Your task to perform on an android device: delete the emails in spam in the gmail app Image 0: 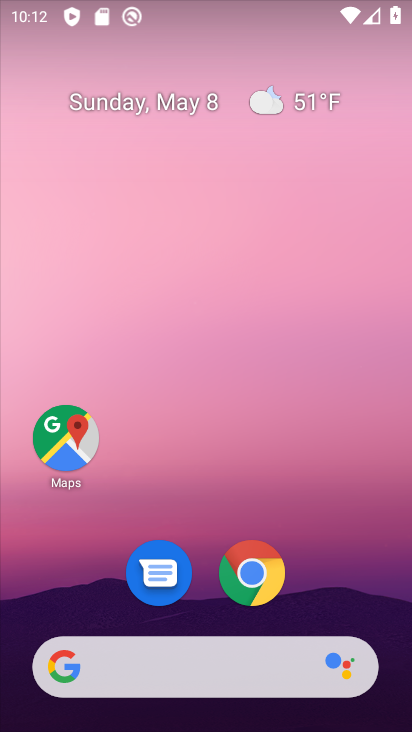
Step 0: drag from (182, 635) to (231, 231)
Your task to perform on an android device: delete the emails in spam in the gmail app Image 1: 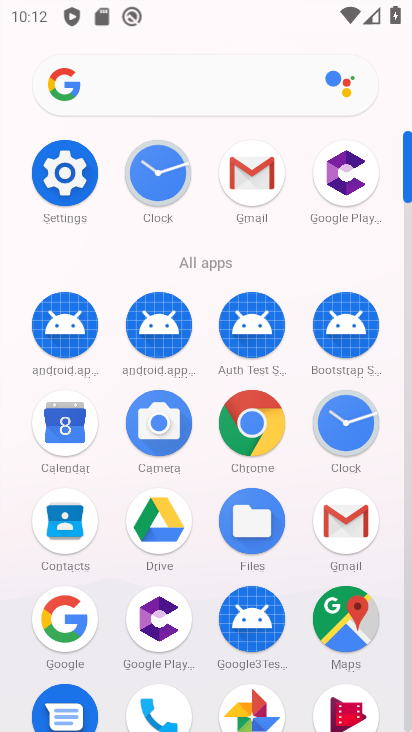
Step 1: click (324, 533)
Your task to perform on an android device: delete the emails in spam in the gmail app Image 2: 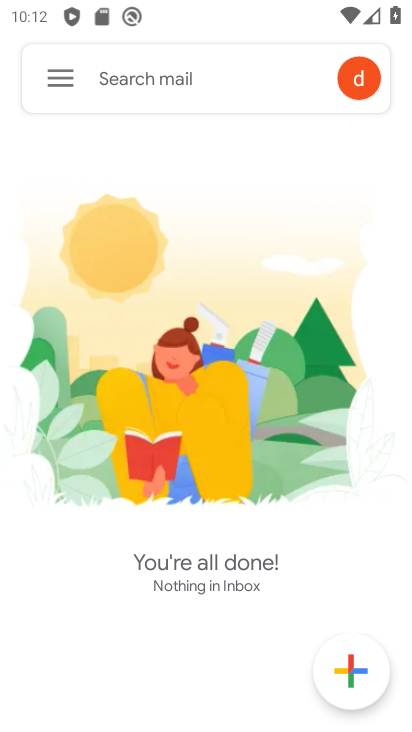
Step 2: click (74, 82)
Your task to perform on an android device: delete the emails in spam in the gmail app Image 3: 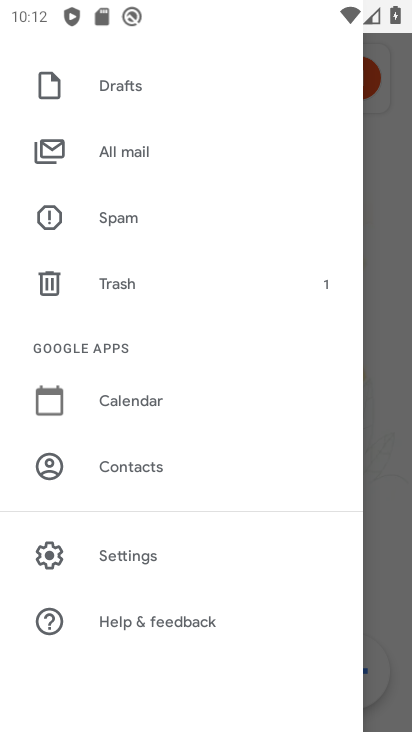
Step 3: click (111, 226)
Your task to perform on an android device: delete the emails in spam in the gmail app Image 4: 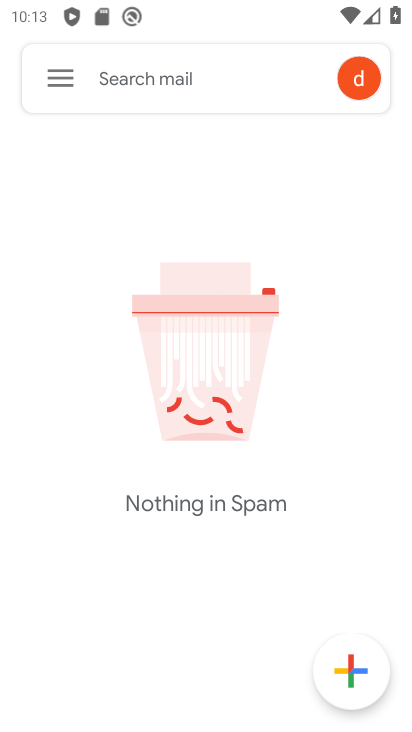
Step 4: task complete